Your task to perform on an android device: turn notification dots off Image 0: 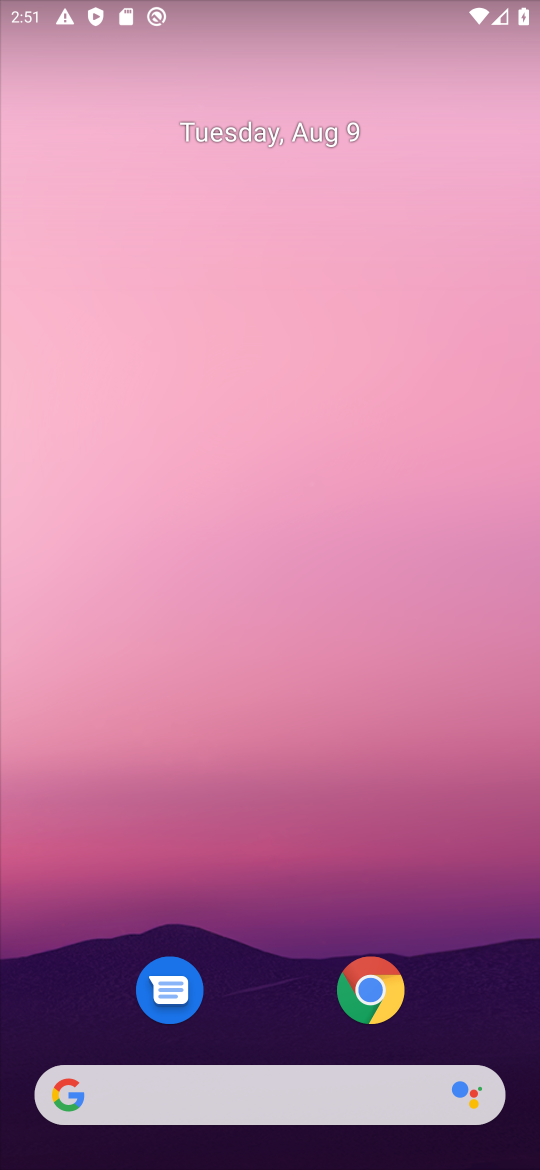
Step 0: drag from (205, 1108) to (184, 20)
Your task to perform on an android device: turn notification dots off Image 1: 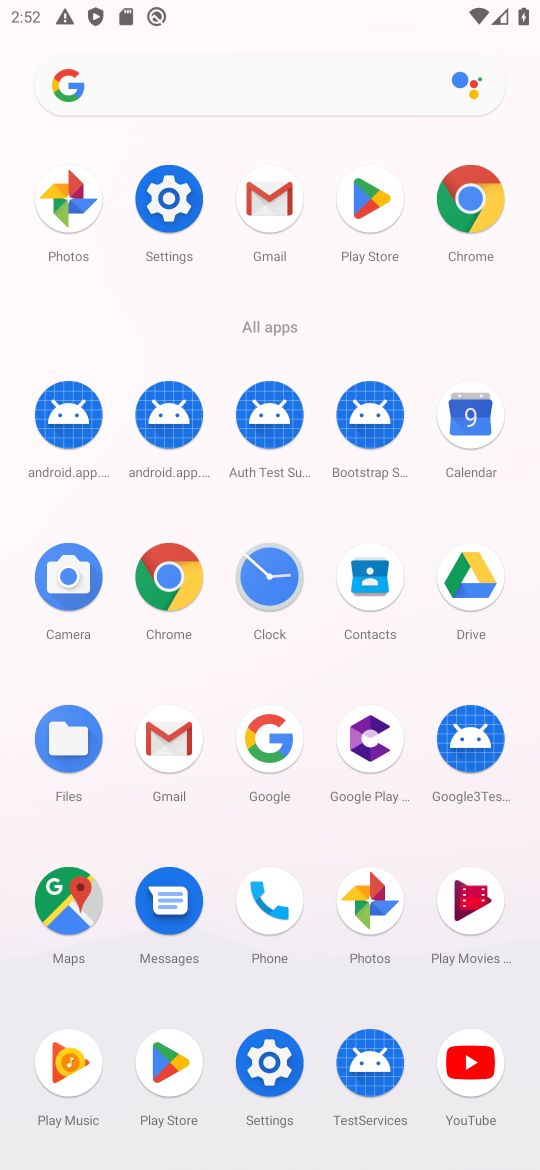
Step 1: click (170, 211)
Your task to perform on an android device: turn notification dots off Image 2: 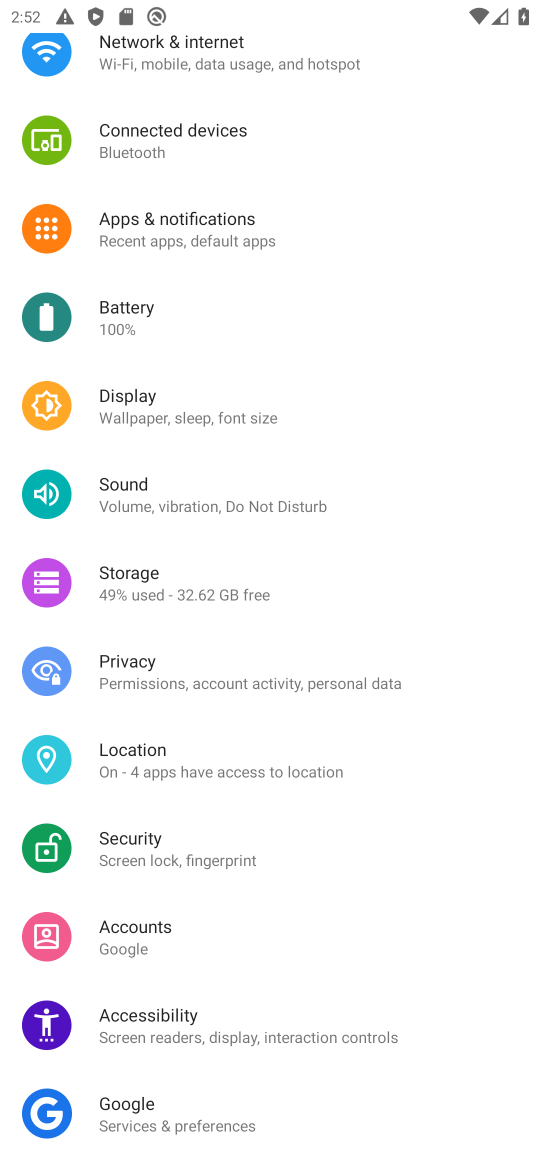
Step 2: click (244, 229)
Your task to perform on an android device: turn notification dots off Image 3: 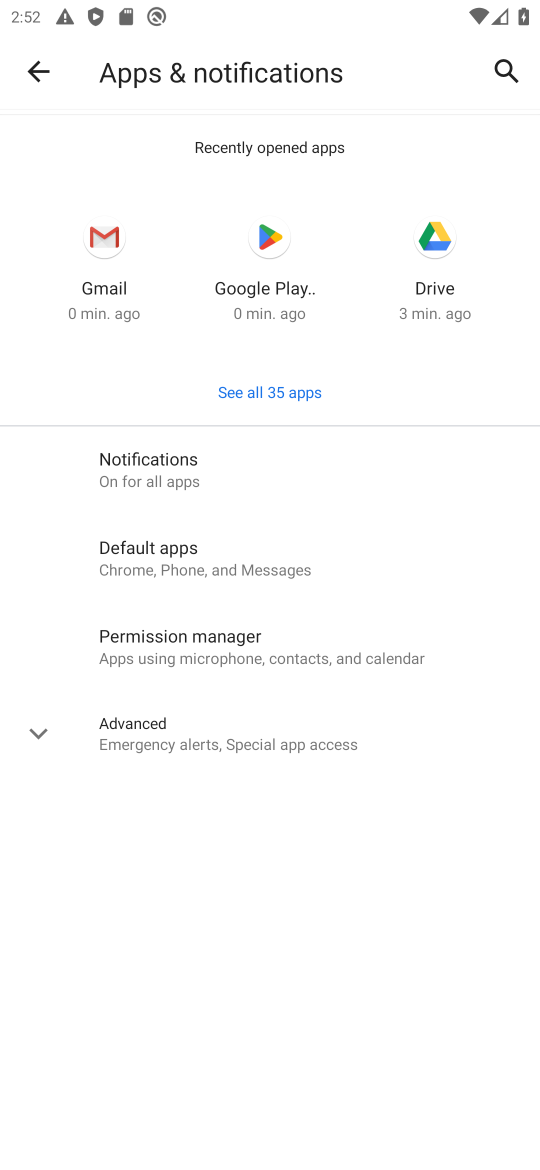
Step 3: click (219, 718)
Your task to perform on an android device: turn notification dots off Image 4: 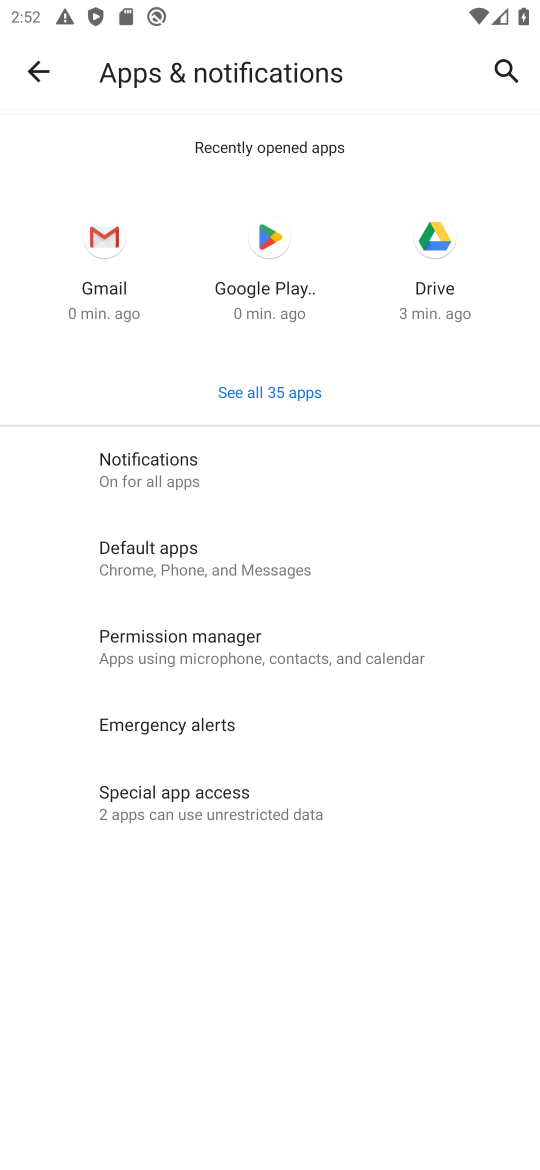
Step 4: click (193, 483)
Your task to perform on an android device: turn notification dots off Image 5: 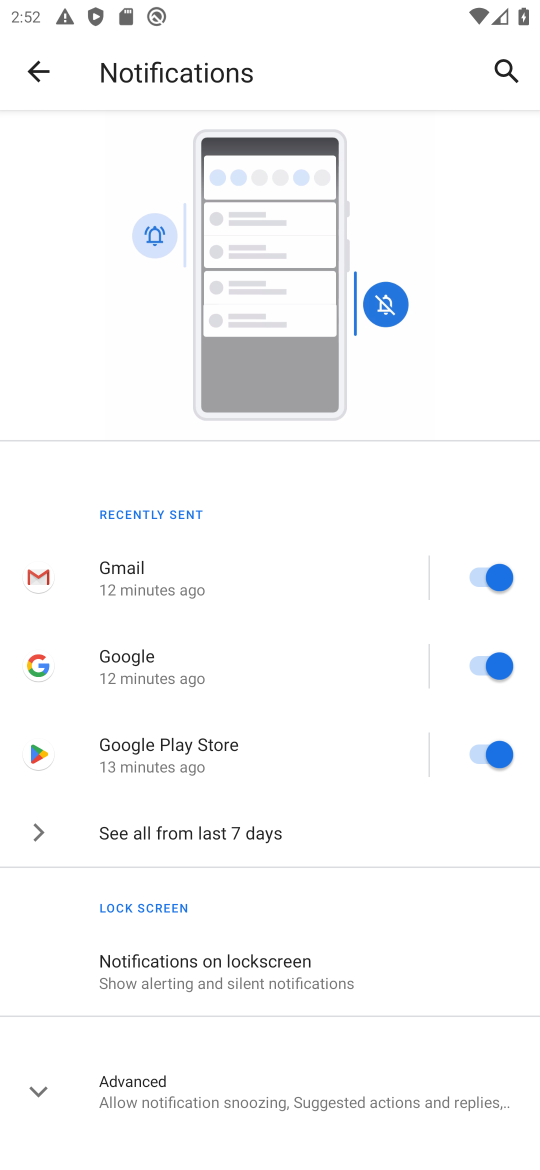
Step 5: click (199, 1085)
Your task to perform on an android device: turn notification dots off Image 6: 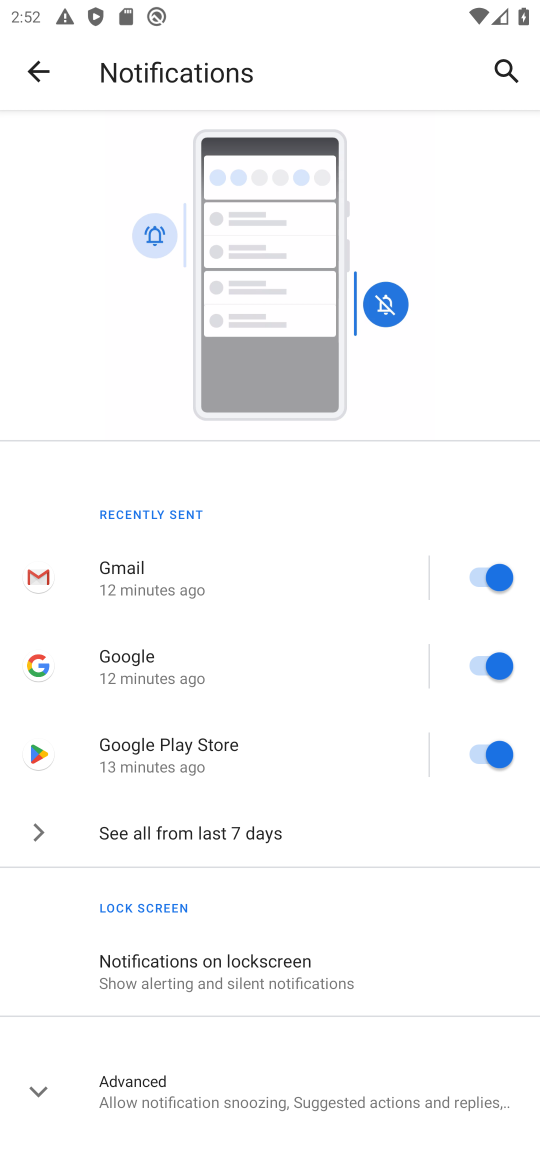
Step 6: click (199, 1085)
Your task to perform on an android device: turn notification dots off Image 7: 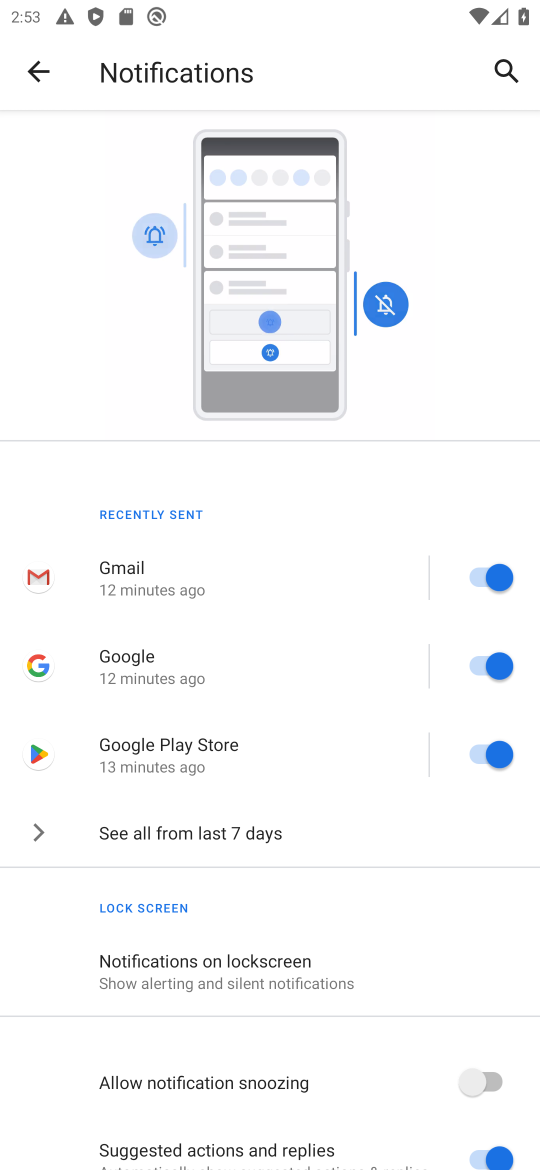
Step 7: press home button
Your task to perform on an android device: turn notification dots off Image 8: 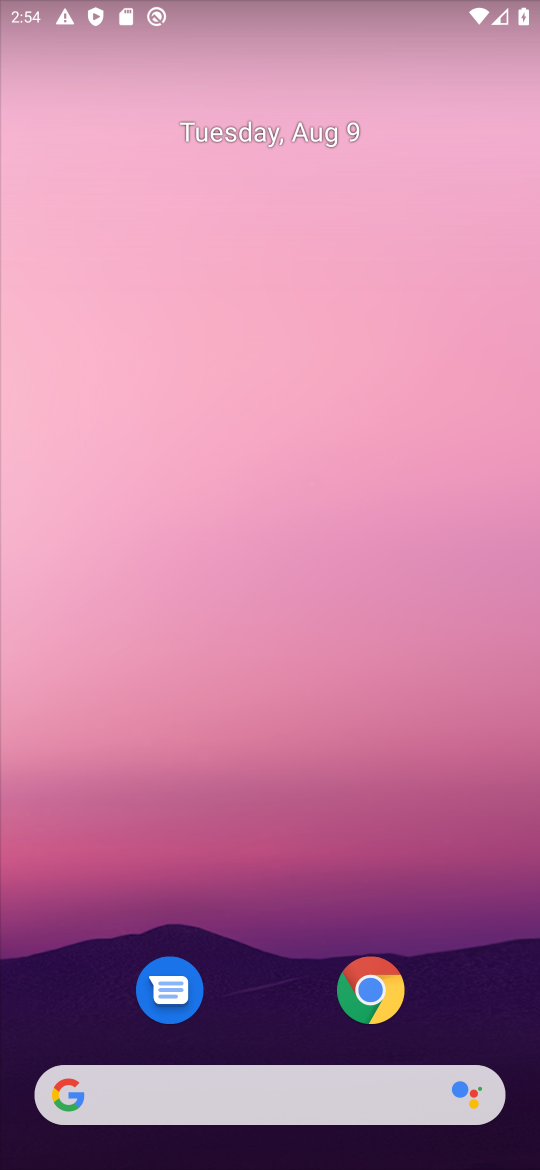
Step 8: drag from (243, 1093) to (25, 255)
Your task to perform on an android device: turn notification dots off Image 9: 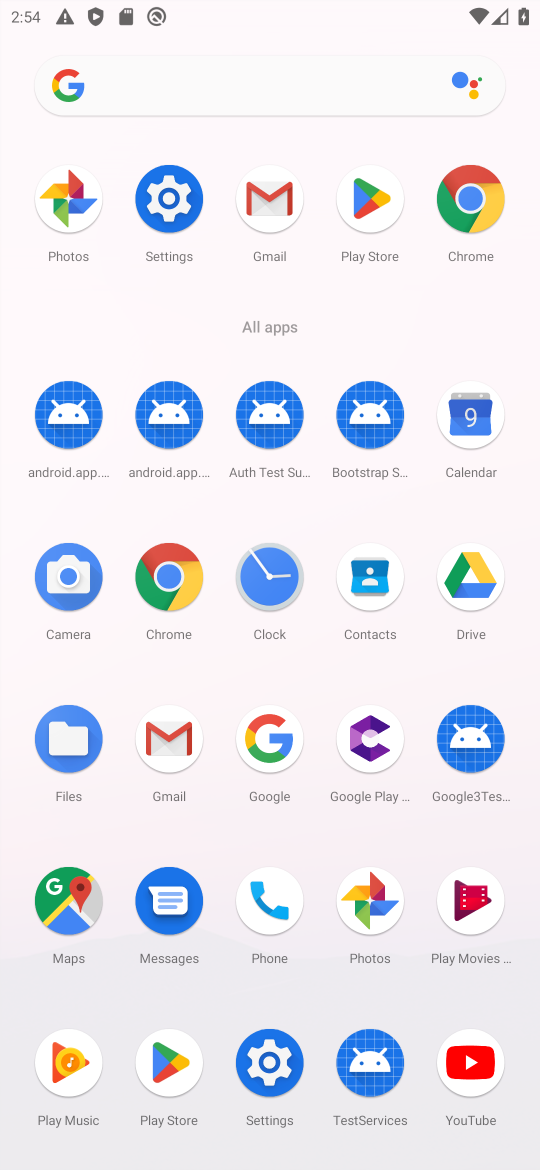
Step 9: click (140, 211)
Your task to perform on an android device: turn notification dots off Image 10: 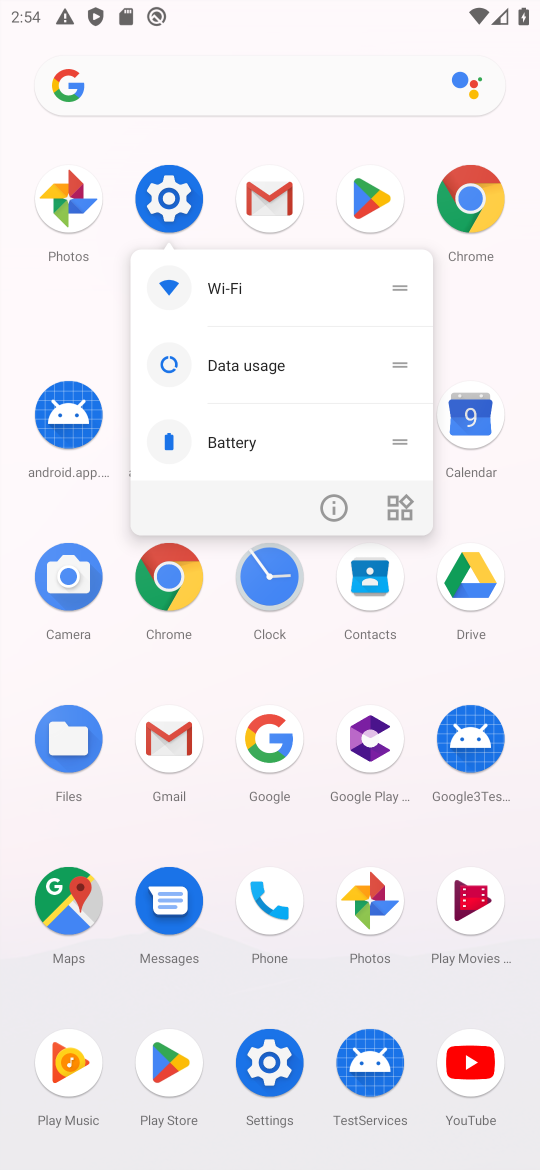
Step 10: click (148, 179)
Your task to perform on an android device: turn notification dots off Image 11: 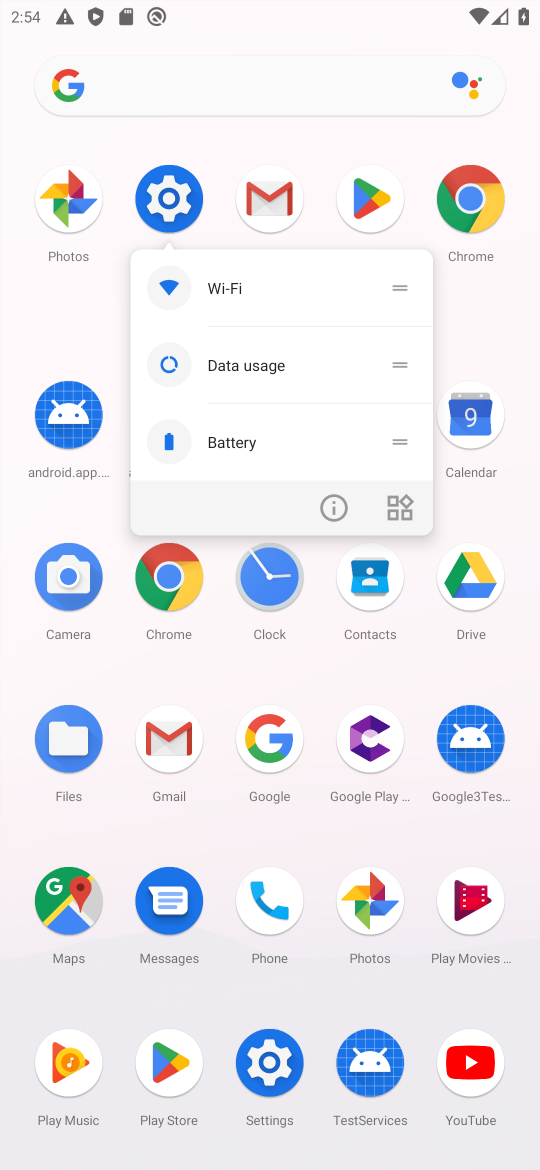
Step 11: click (148, 179)
Your task to perform on an android device: turn notification dots off Image 12: 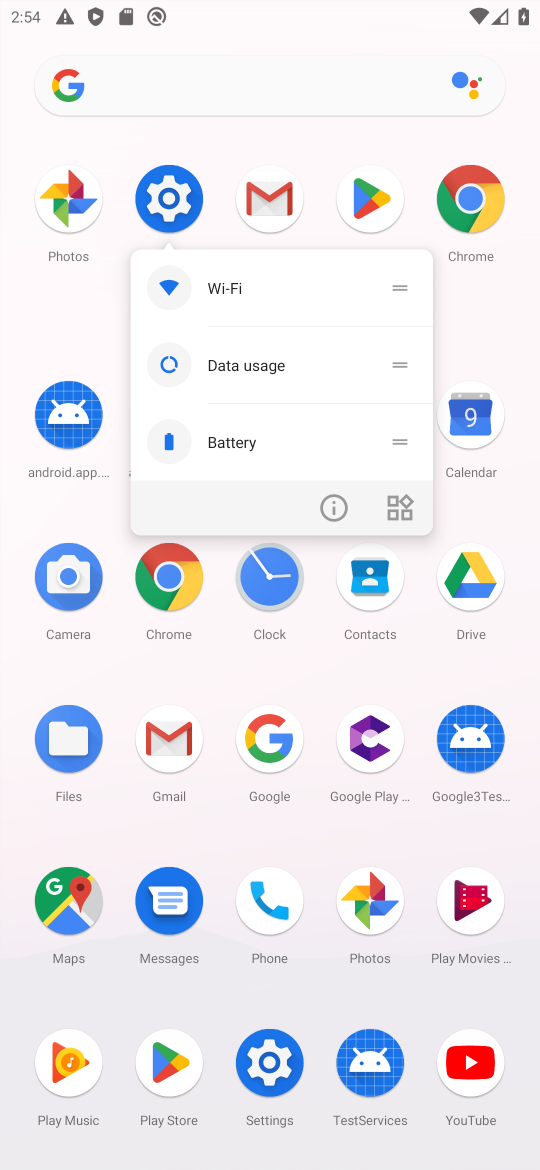
Step 12: click (148, 179)
Your task to perform on an android device: turn notification dots off Image 13: 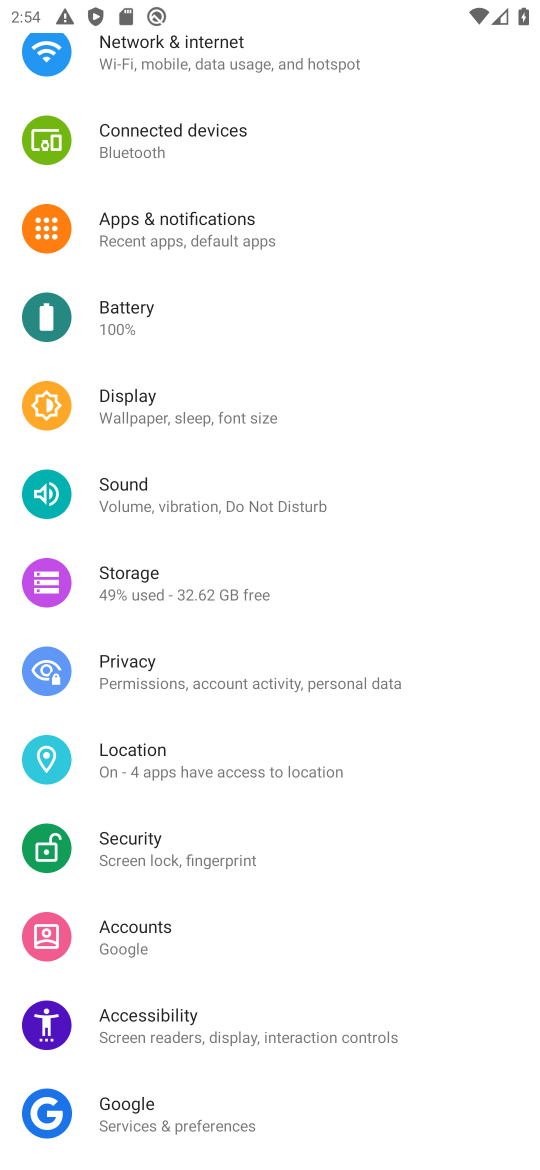
Step 13: click (207, 230)
Your task to perform on an android device: turn notification dots off Image 14: 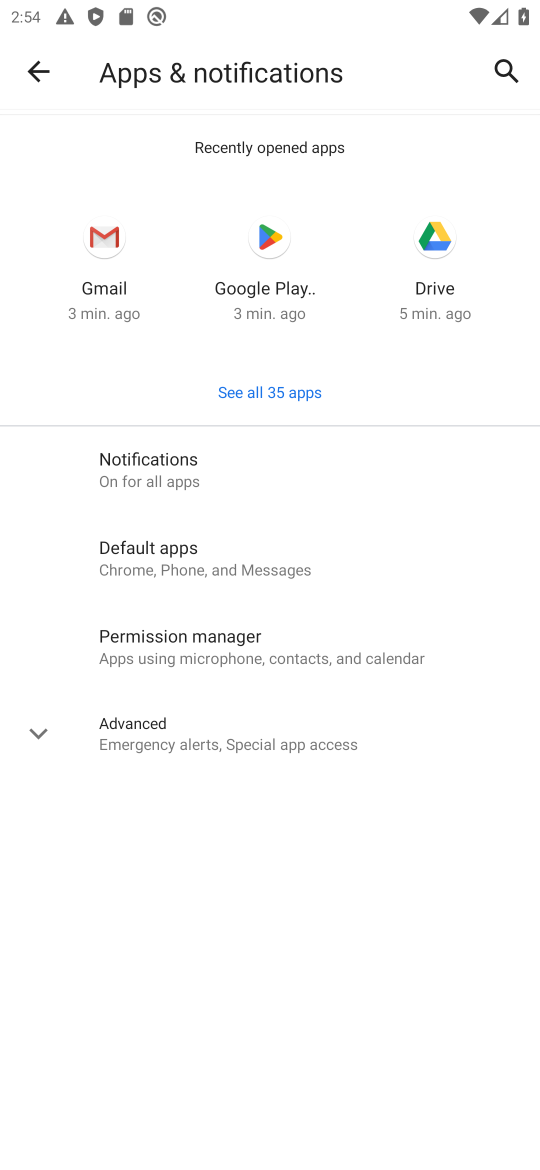
Step 14: click (260, 475)
Your task to perform on an android device: turn notification dots off Image 15: 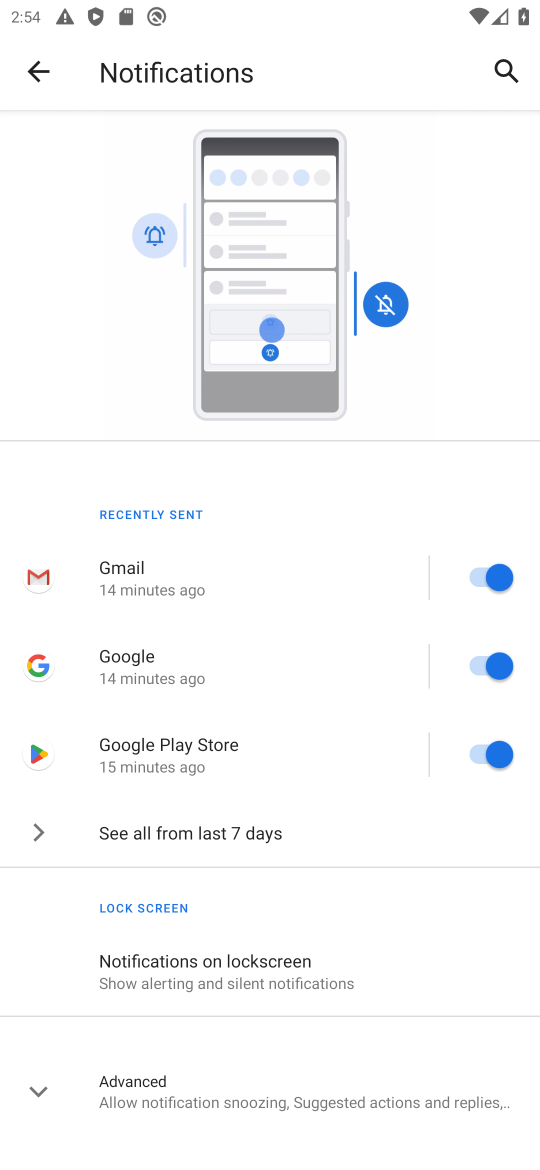
Step 15: click (367, 1094)
Your task to perform on an android device: turn notification dots off Image 16: 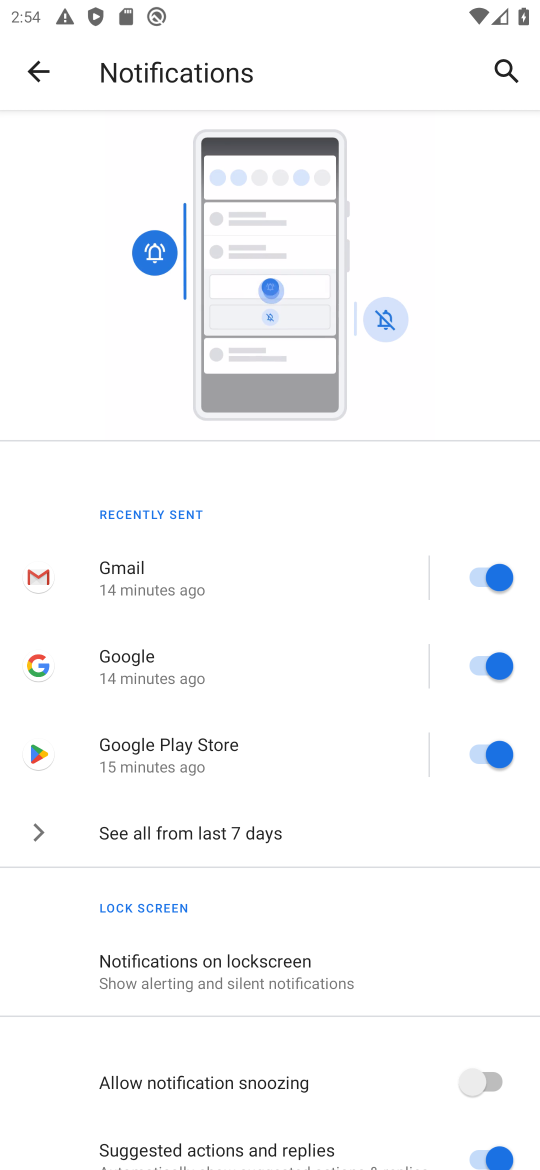
Step 16: task complete